Your task to perform on an android device: delete browsing data in the chrome app Image 0: 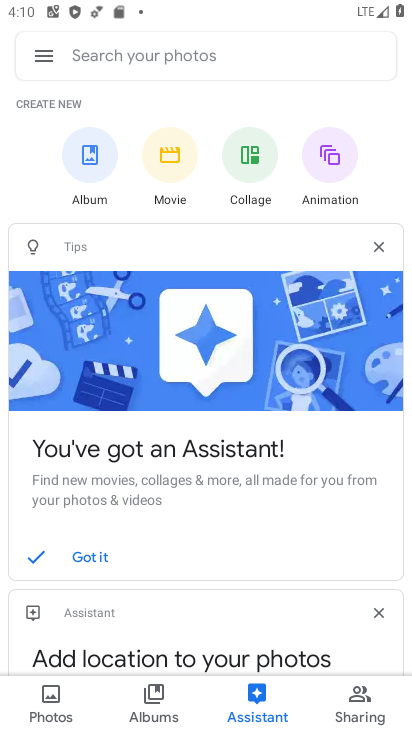
Step 0: press home button
Your task to perform on an android device: delete browsing data in the chrome app Image 1: 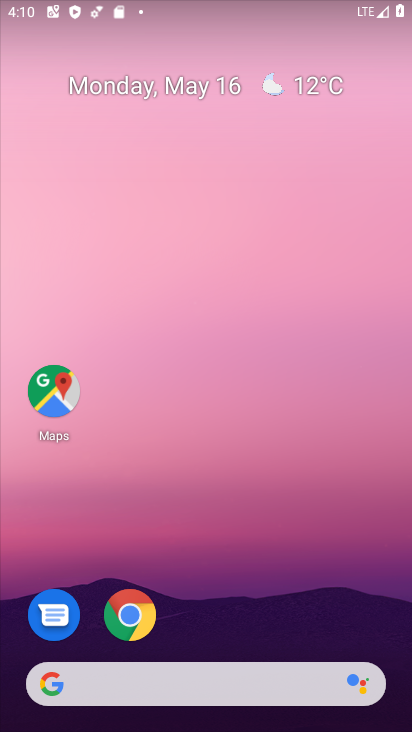
Step 1: drag from (213, 724) to (211, 296)
Your task to perform on an android device: delete browsing data in the chrome app Image 2: 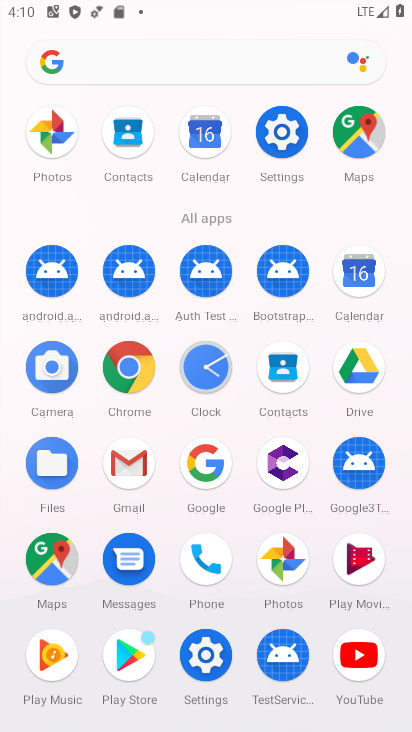
Step 2: click (127, 372)
Your task to perform on an android device: delete browsing data in the chrome app Image 3: 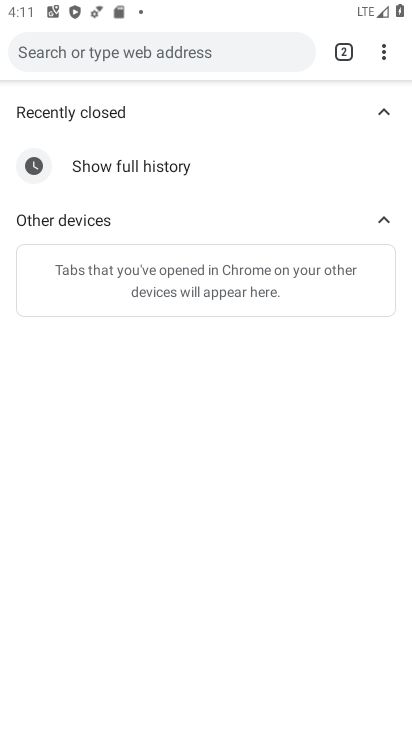
Step 3: click (385, 55)
Your task to perform on an android device: delete browsing data in the chrome app Image 4: 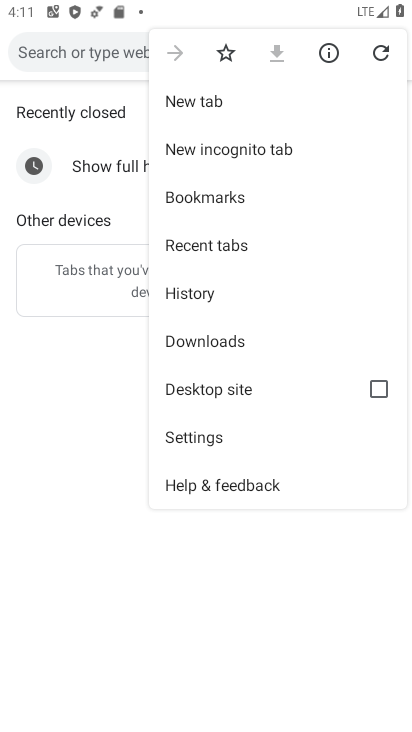
Step 4: click (196, 295)
Your task to perform on an android device: delete browsing data in the chrome app Image 5: 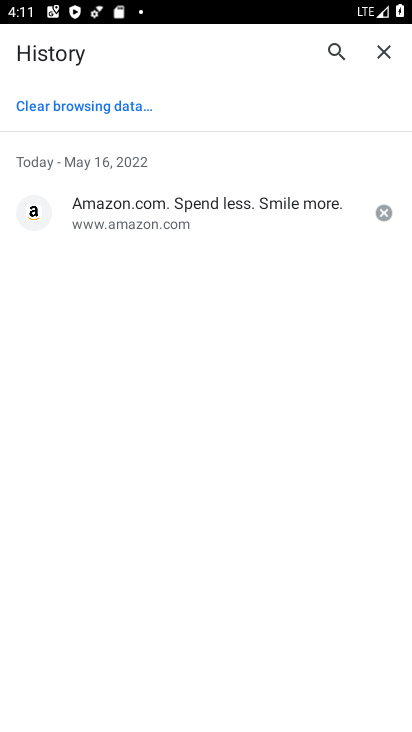
Step 5: click (117, 100)
Your task to perform on an android device: delete browsing data in the chrome app Image 6: 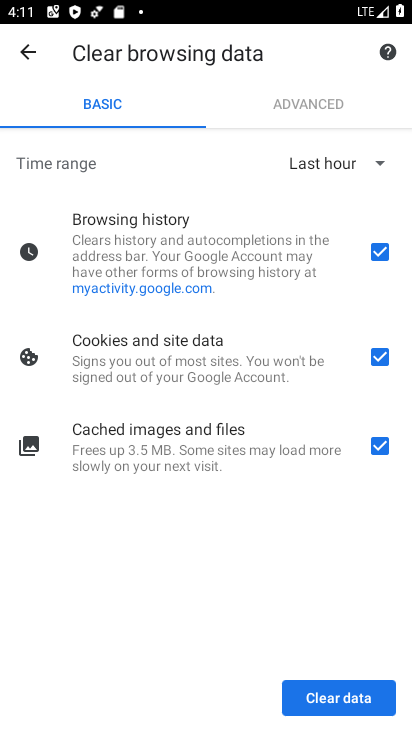
Step 6: click (374, 447)
Your task to perform on an android device: delete browsing data in the chrome app Image 7: 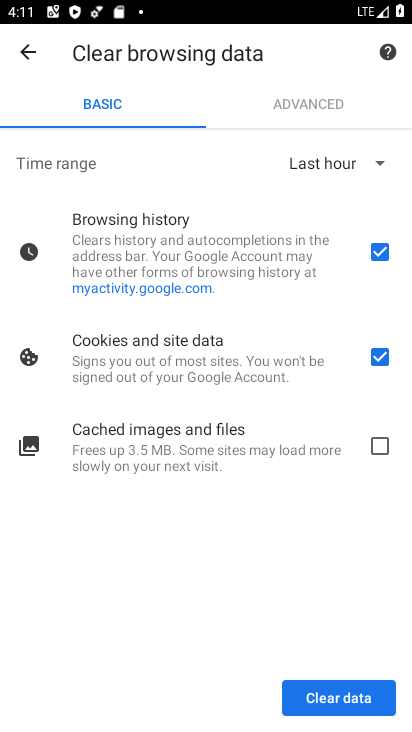
Step 7: click (378, 355)
Your task to perform on an android device: delete browsing data in the chrome app Image 8: 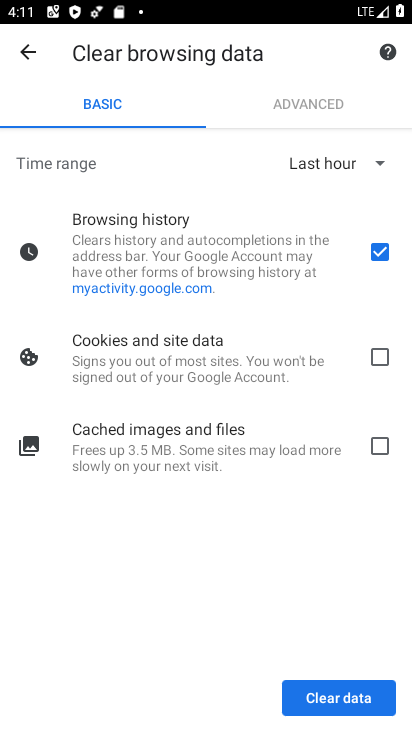
Step 8: click (339, 695)
Your task to perform on an android device: delete browsing data in the chrome app Image 9: 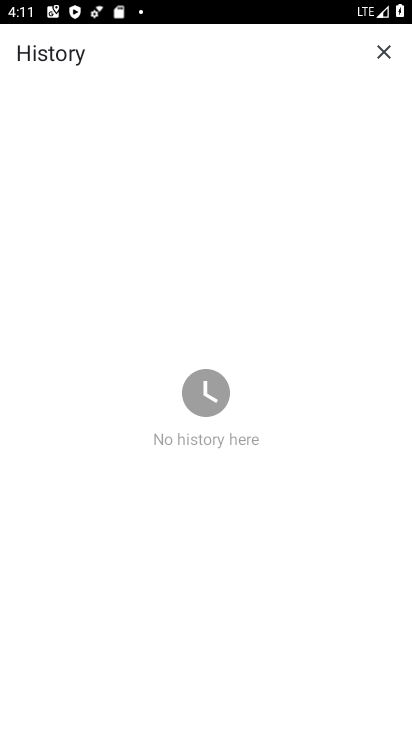
Step 9: task complete